Your task to perform on an android device: Open the phone app and click the voicemail tab. Image 0: 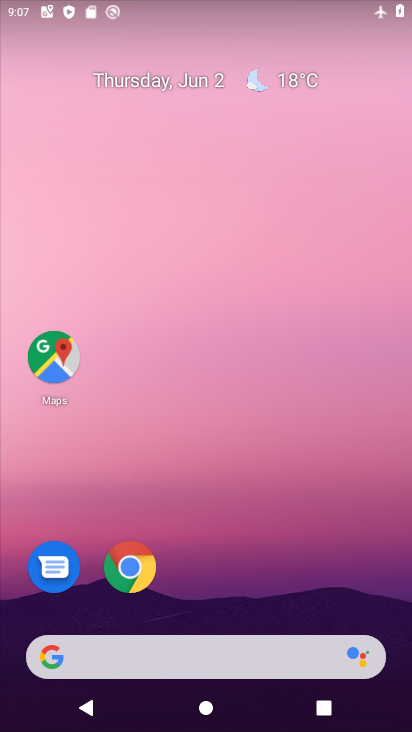
Step 0: drag from (216, 612) to (219, 37)
Your task to perform on an android device: Open the phone app and click the voicemail tab. Image 1: 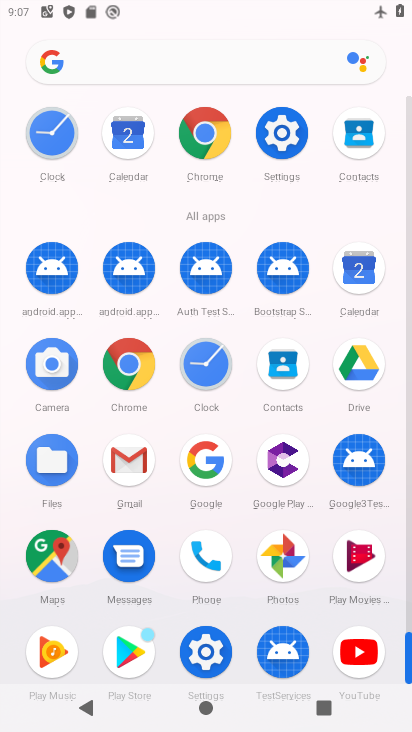
Step 1: click (205, 552)
Your task to perform on an android device: Open the phone app and click the voicemail tab. Image 2: 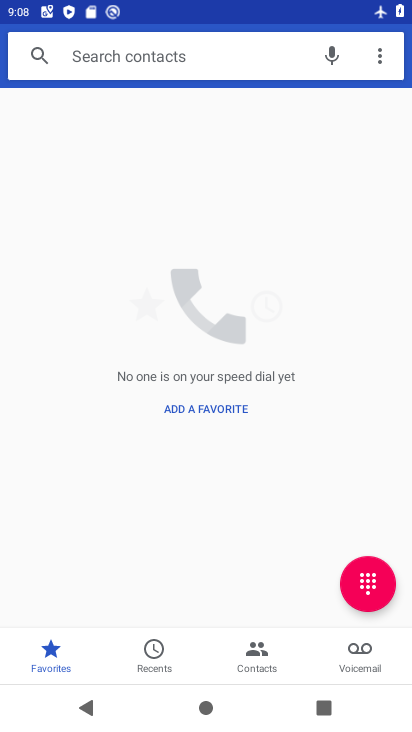
Step 2: click (356, 640)
Your task to perform on an android device: Open the phone app and click the voicemail tab. Image 3: 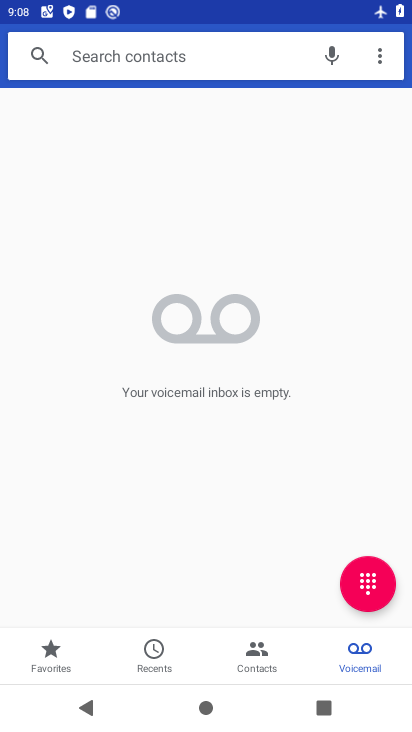
Step 3: task complete